Your task to perform on an android device: change timer sound Image 0: 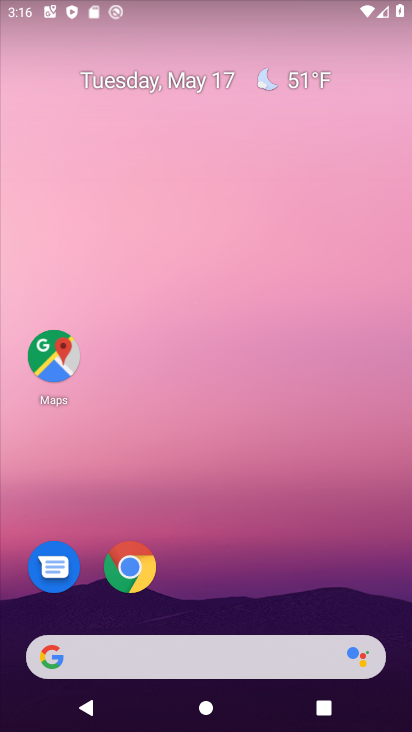
Step 0: drag from (253, 663) to (270, 115)
Your task to perform on an android device: change timer sound Image 1: 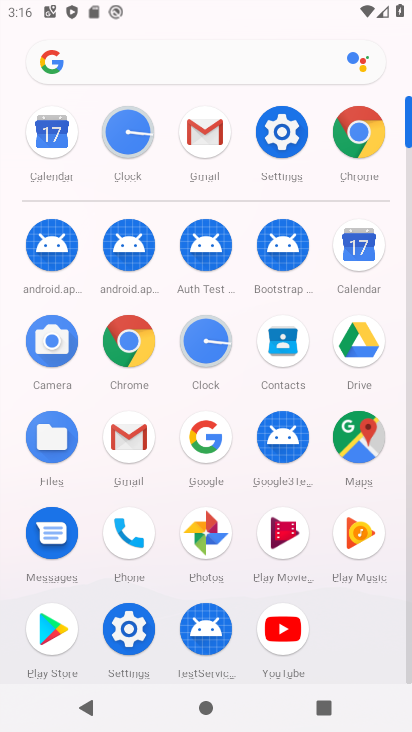
Step 1: click (222, 357)
Your task to perform on an android device: change timer sound Image 2: 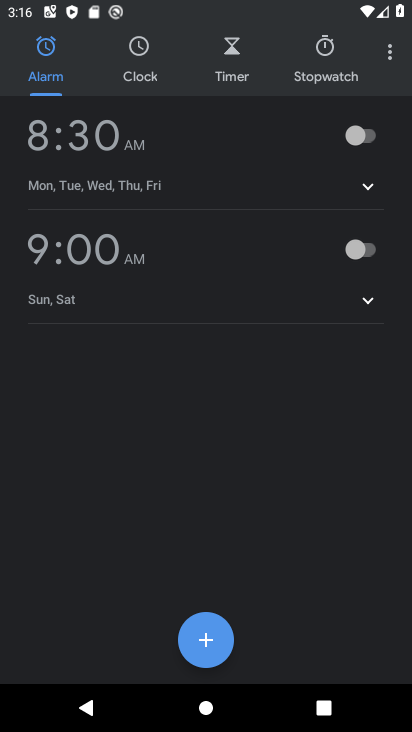
Step 2: click (387, 65)
Your task to perform on an android device: change timer sound Image 3: 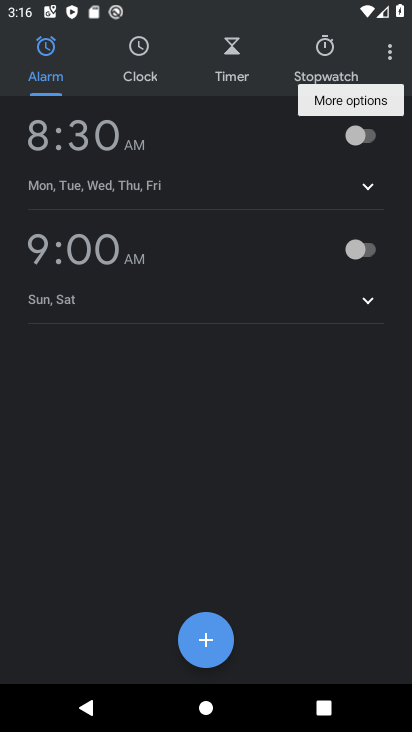
Step 3: click (387, 65)
Your task to perform on an android device: change timer sound Image 4: 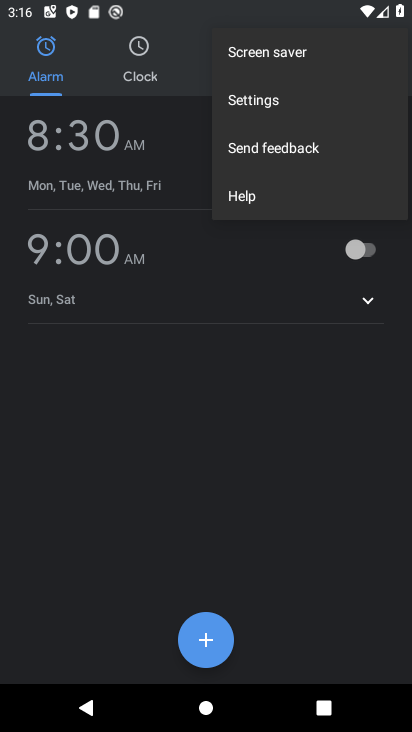
Step 4: click (277, 109)
Your task to perform on an android device: change timer sound Image 5: 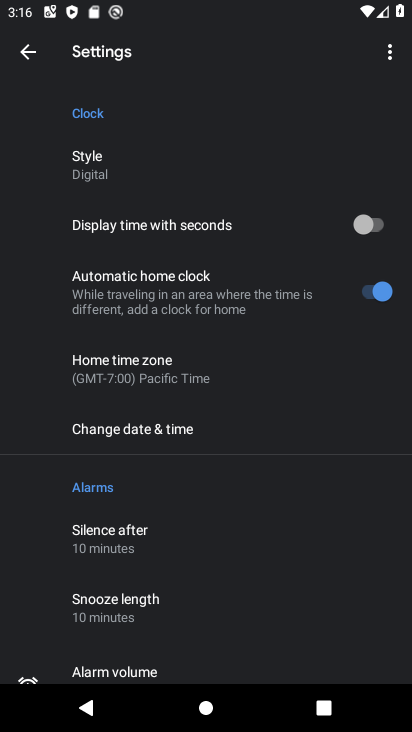
Step 5: drag from (181, 570) to (206, 220)
Your task to perform on an android device: change timer sound Image 6: 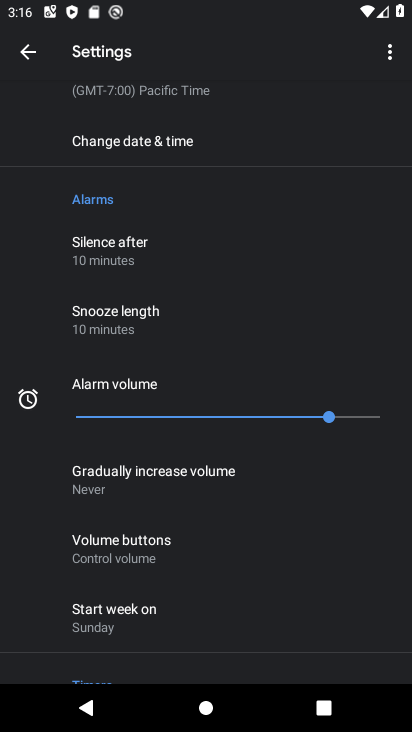
Step 6: drag from (196, 594) to (185, 126)
Your task to perform on an android device: change timer sound Image 7: 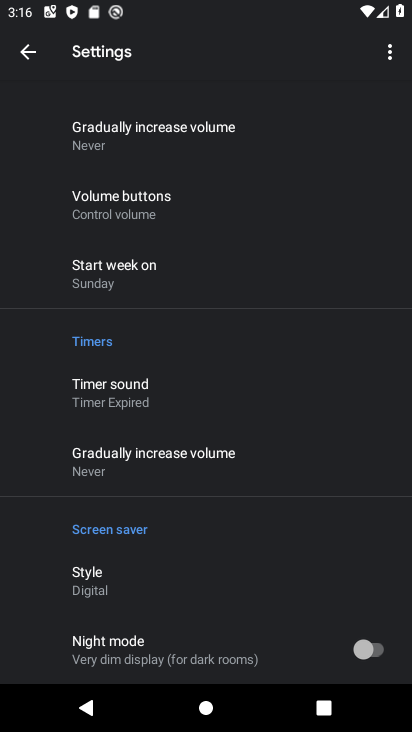
Step 7: click (151, 421)
Your task to perform on an android device: change timer sound Image 8: 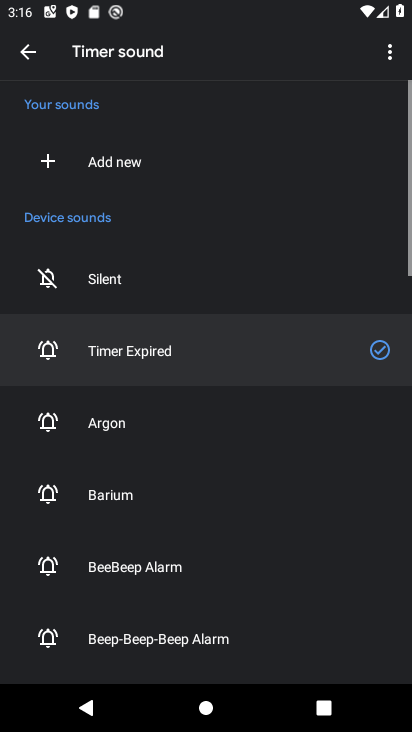
Step 8: click (134, 642)
Your task to perform on an android device: change timer sound Image 9: 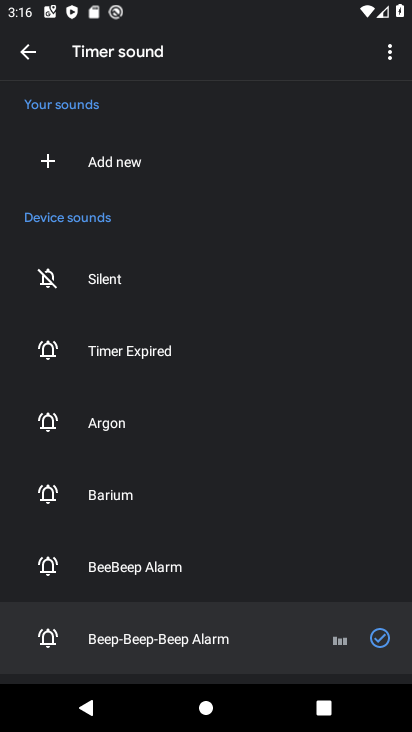
Step 9: task complete